Your task to perform on an android device: Turn on the flashlight Image 0: 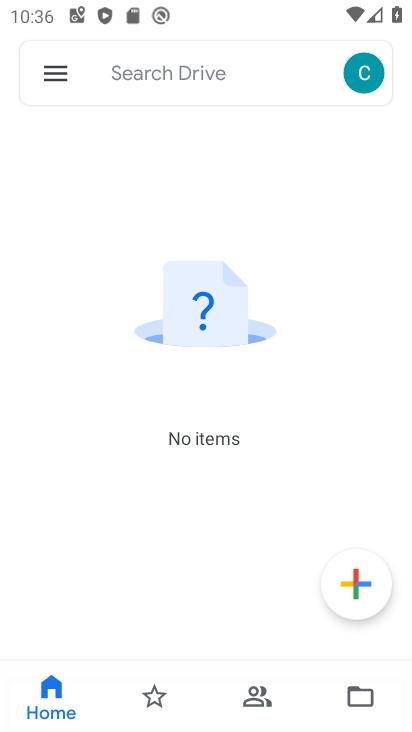
Step 0: press home button
Your task to perform on an android device: Turn on the flashlight Image 1: 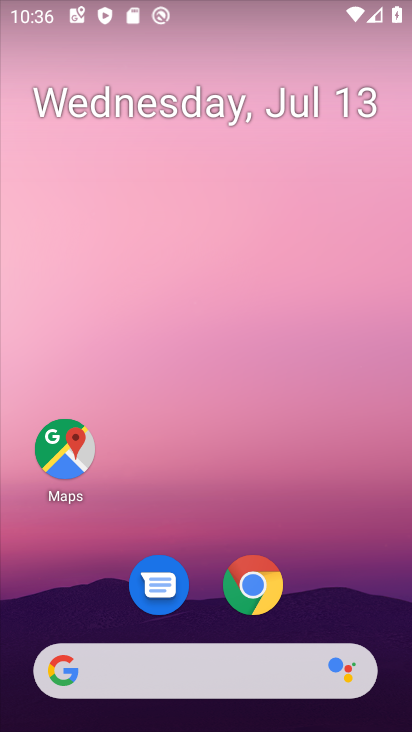
Step 1: drag from (229, 460) to (318, 5)
Your task to perform on an android device: Turn on the flashlight Image 2: 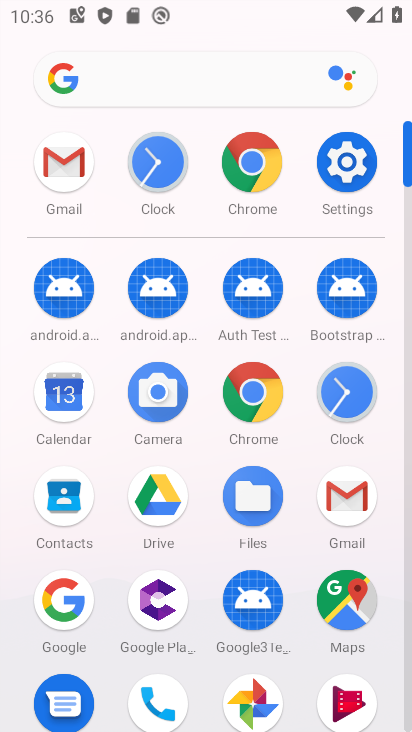
Step 2: click (340, 153)
Your task to perform on an android device: Turn on the flashlight Image 3: 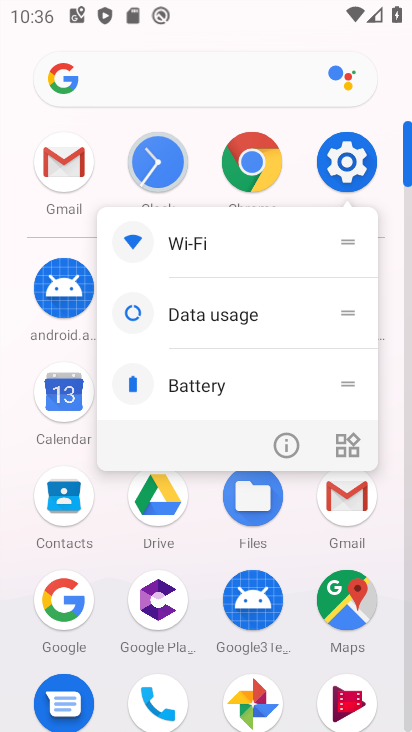
Step 3: click (340, 150)
Your task to perform on an android device: Turn on the flashlight Image 4: 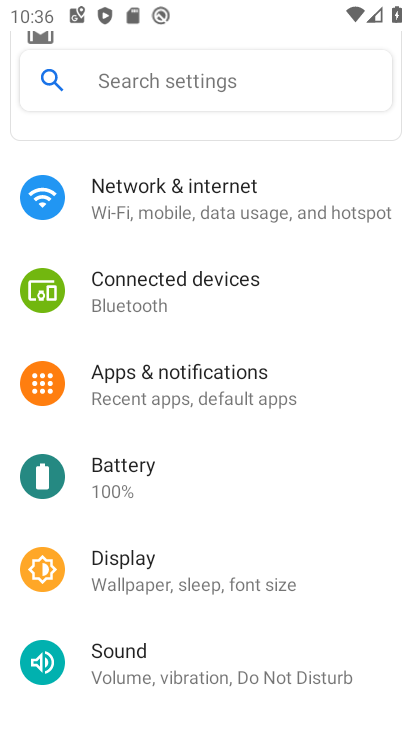
Step 4: click (254, 71)
Your task to perform on an android device: Turn on the flashlight Image 5: 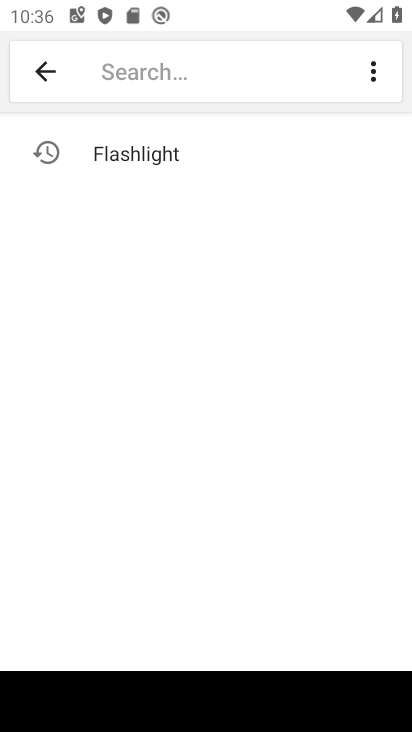
Step 5: click (160, 145)
Your task to perform on an android device: Turn on the flashlight Image 6: 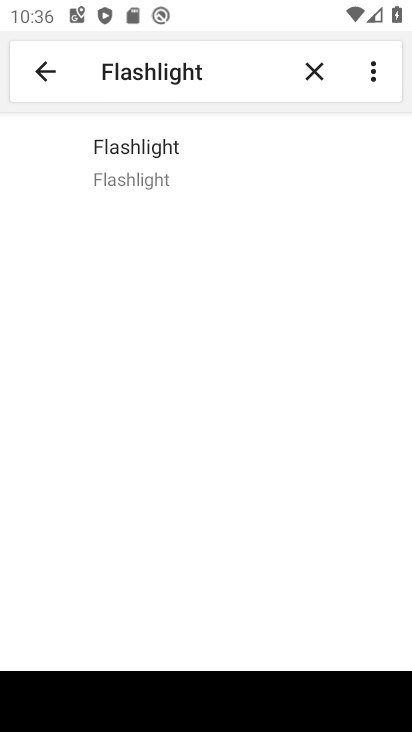
Step 6: task complete